Your task to perform on an android device: Add logitech g502 to the cart on amazon Image 0: 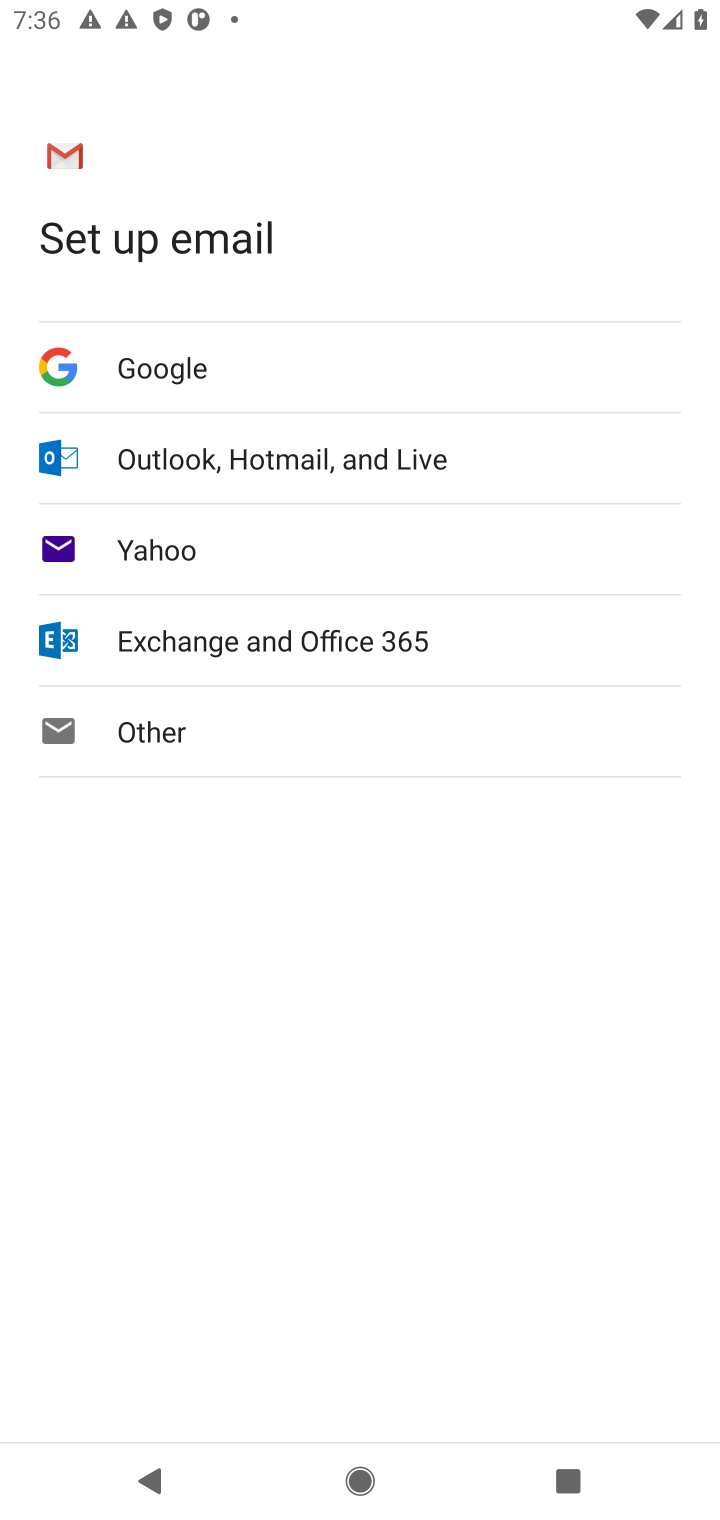
Step 0: press home button
Your task to perform on an android device: Add logitech g502 to the cart on amazon Image 1: 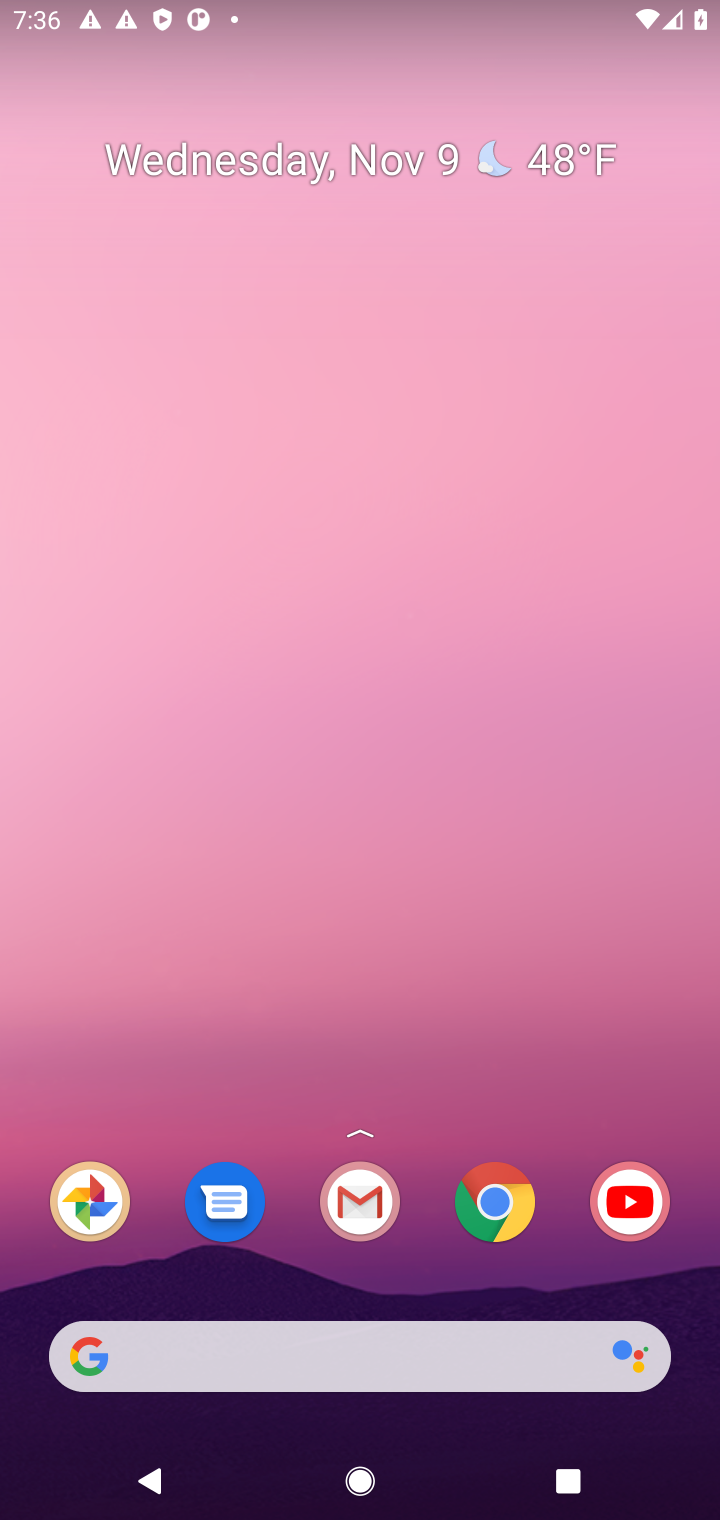
Step 1: click (491, 1190)
Your task to perform on an android device: Add logitech g502 to the cart on amazon Image 2: 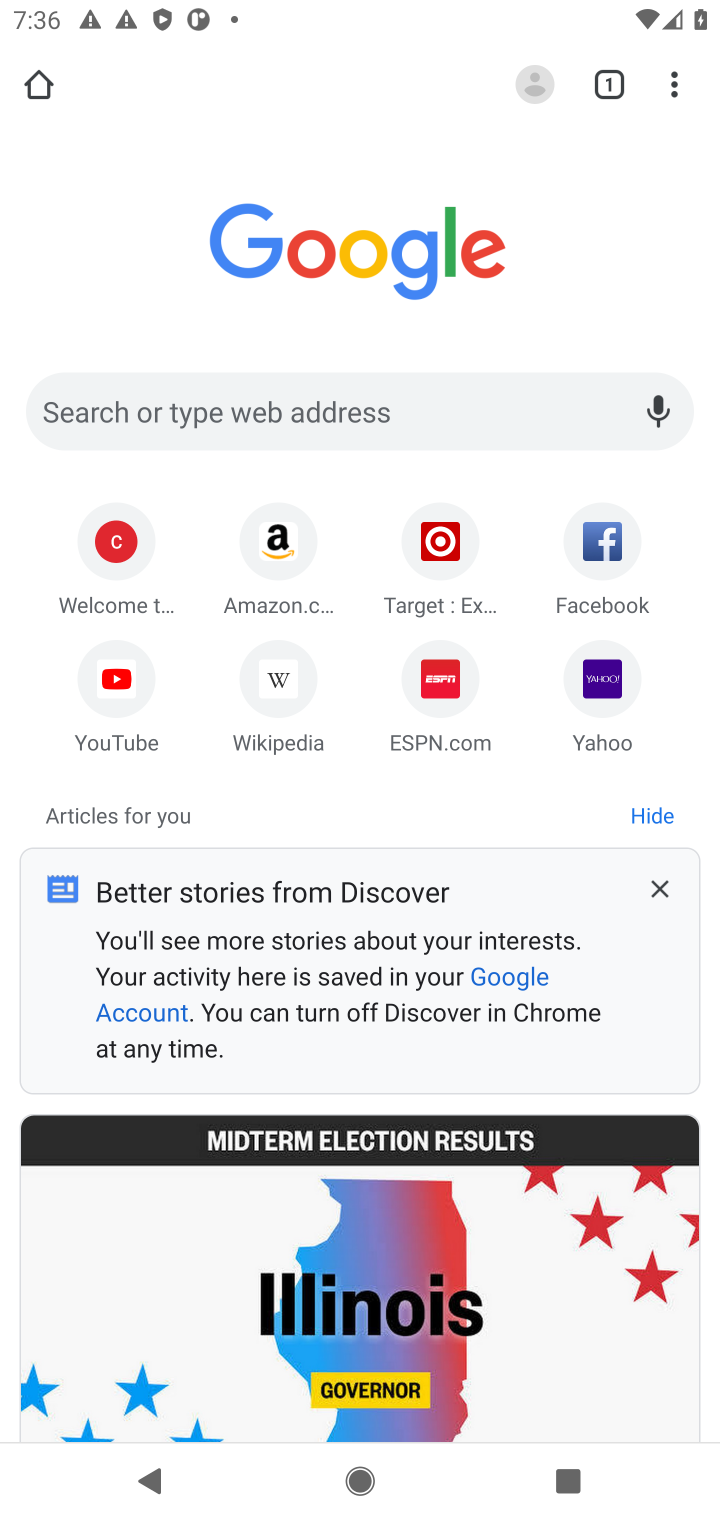
Step 2: click (248, 418)
Your task to perform on an android device: Add logitech g502 to the cart on amazon Image 3: 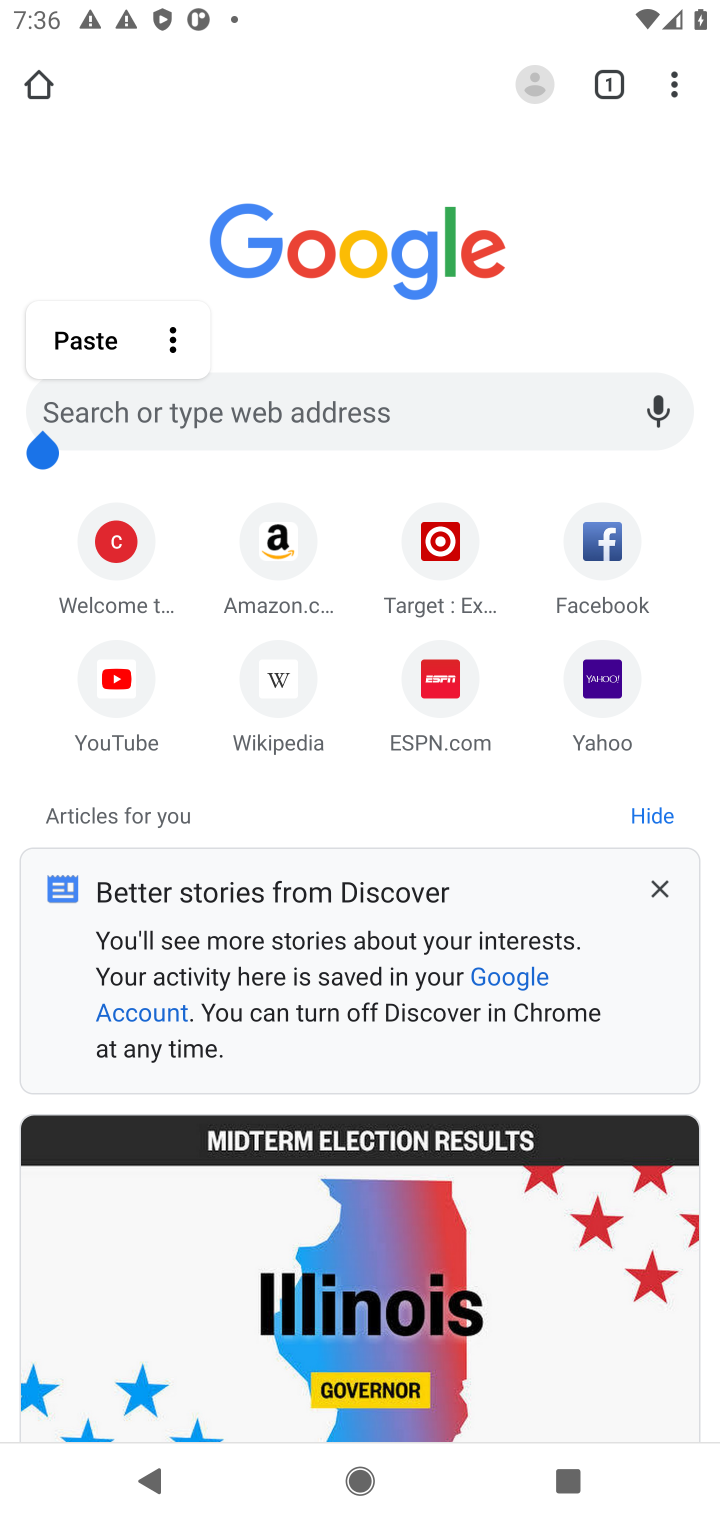
Step 3: click (213, 412)
Your task to perform on an android device: Add logitech g502 to the cart on amazon Image 4: 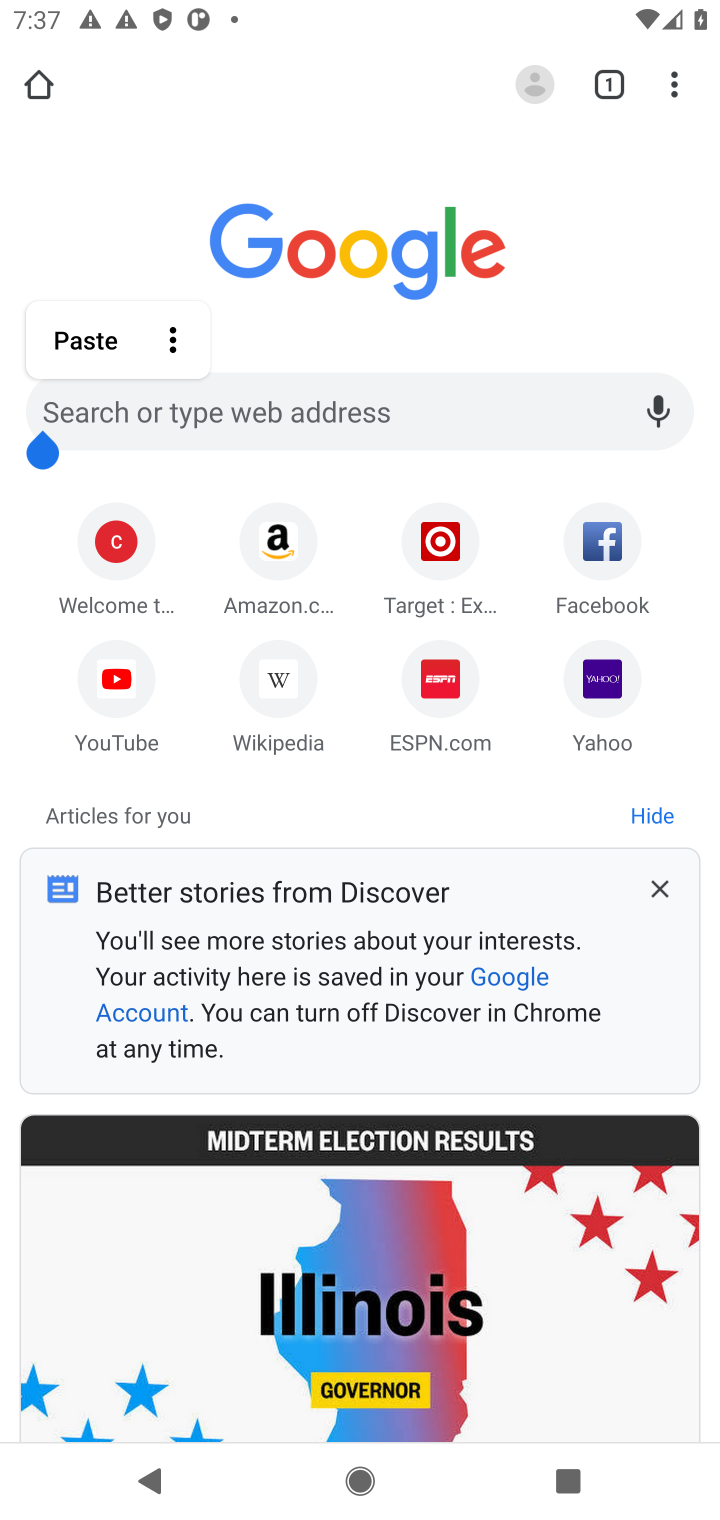
Step 4: click (178, 405)
Your task to perform on an android device: Add logitech g502 to the cart on amazon Image 5: 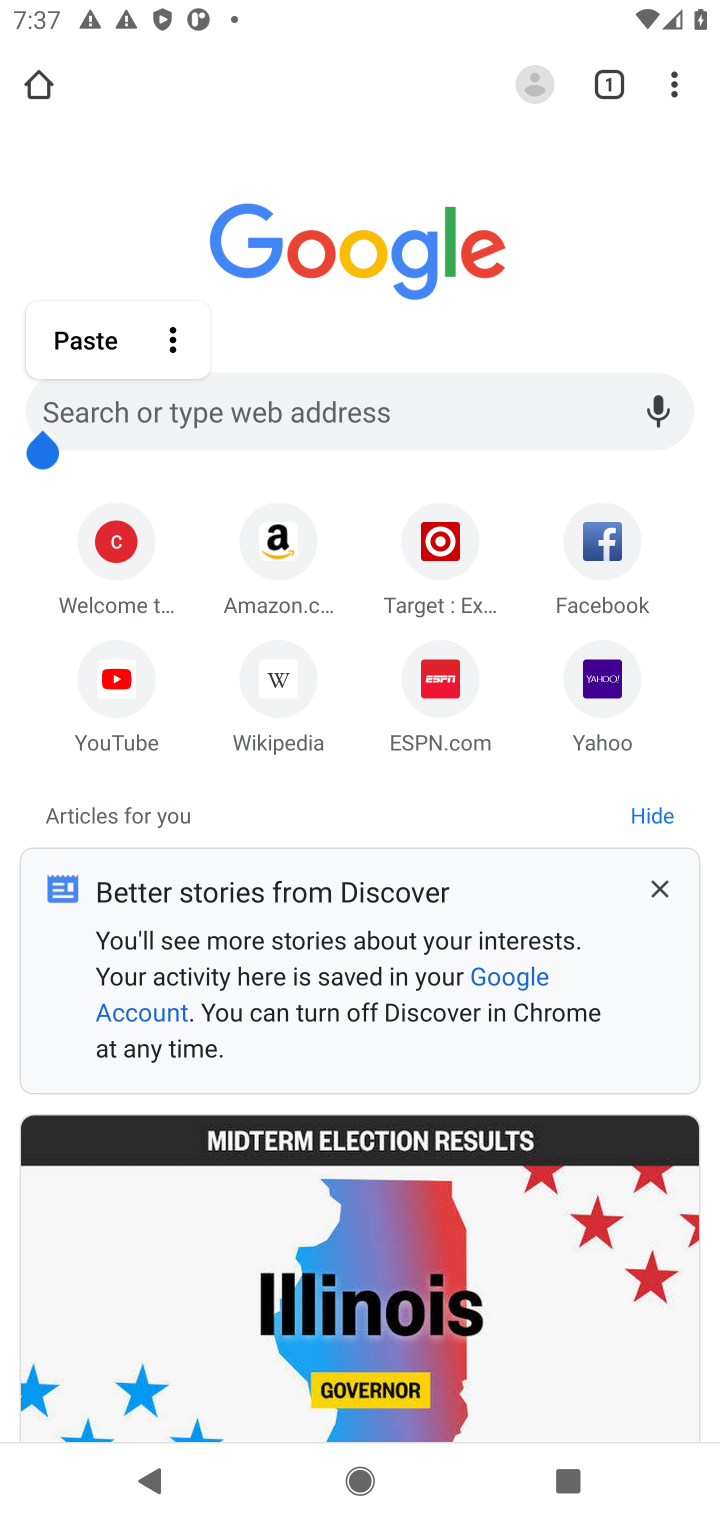
Step 5: click (321, 396)
Your task to perform on an android device: Add logitech g502 to the cart on amazon Image 6: 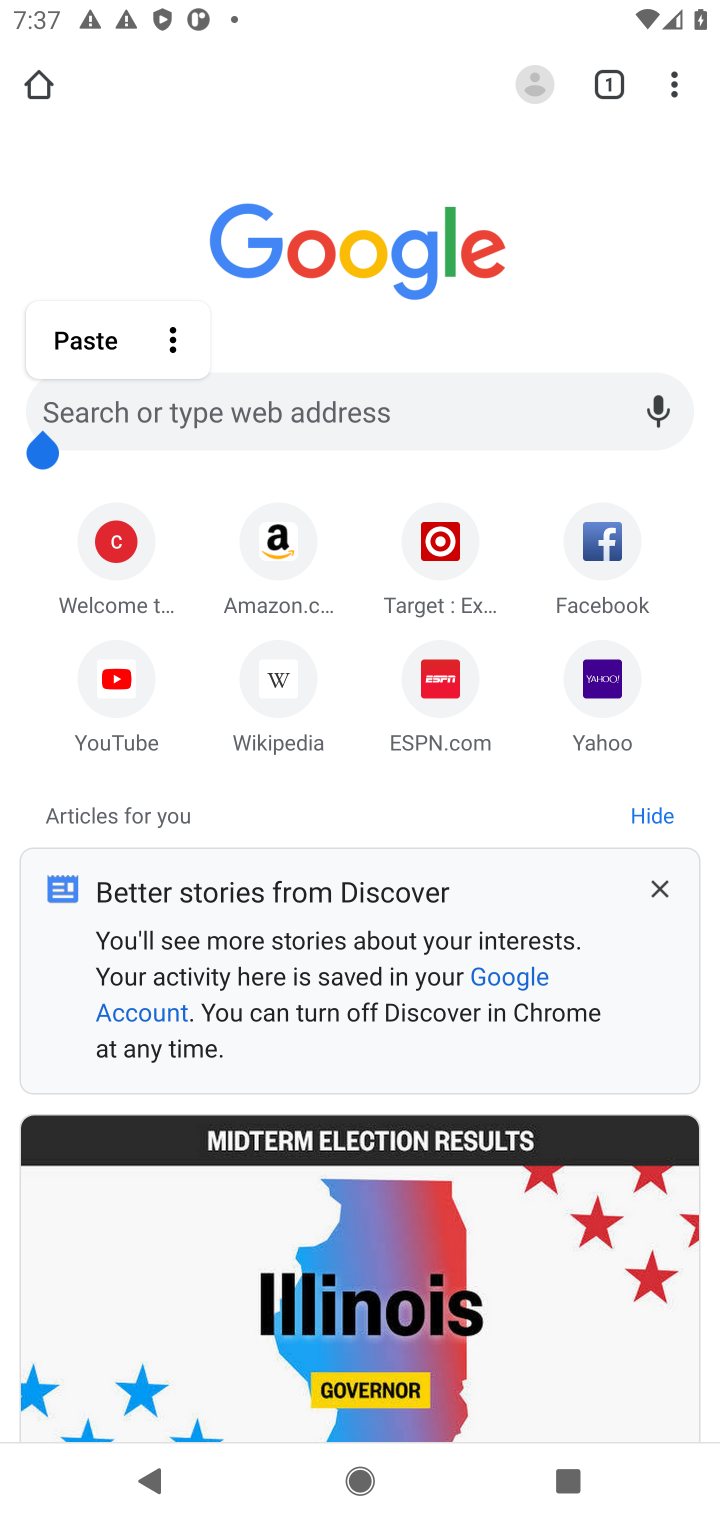
Step 6: click (487, 424)
Your task to perform on an android device: Add logitech g502 to the cart on amazon Image 7: 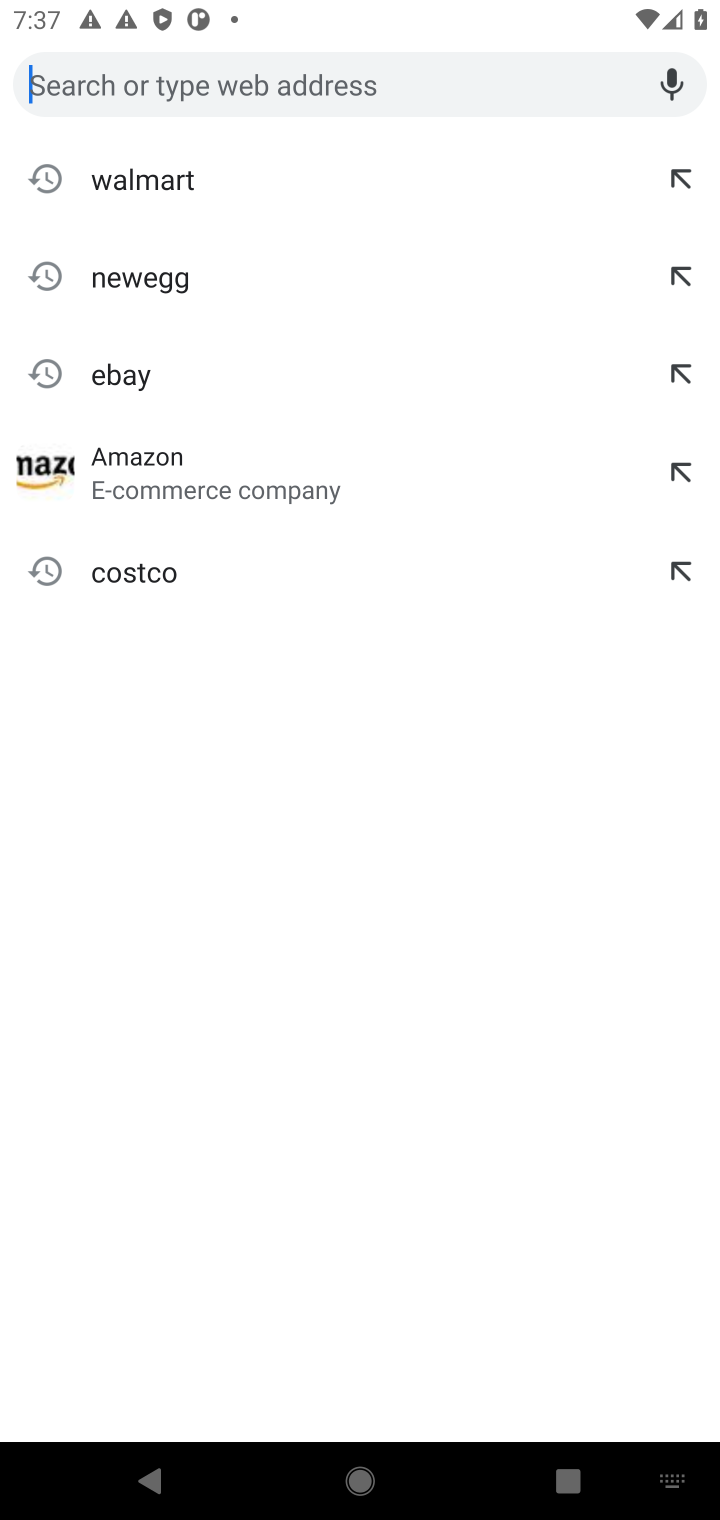
Step 7: click (114, 457)
Your task to perform on an android device: Add logitech g502 to the cart on amazon Image 8: 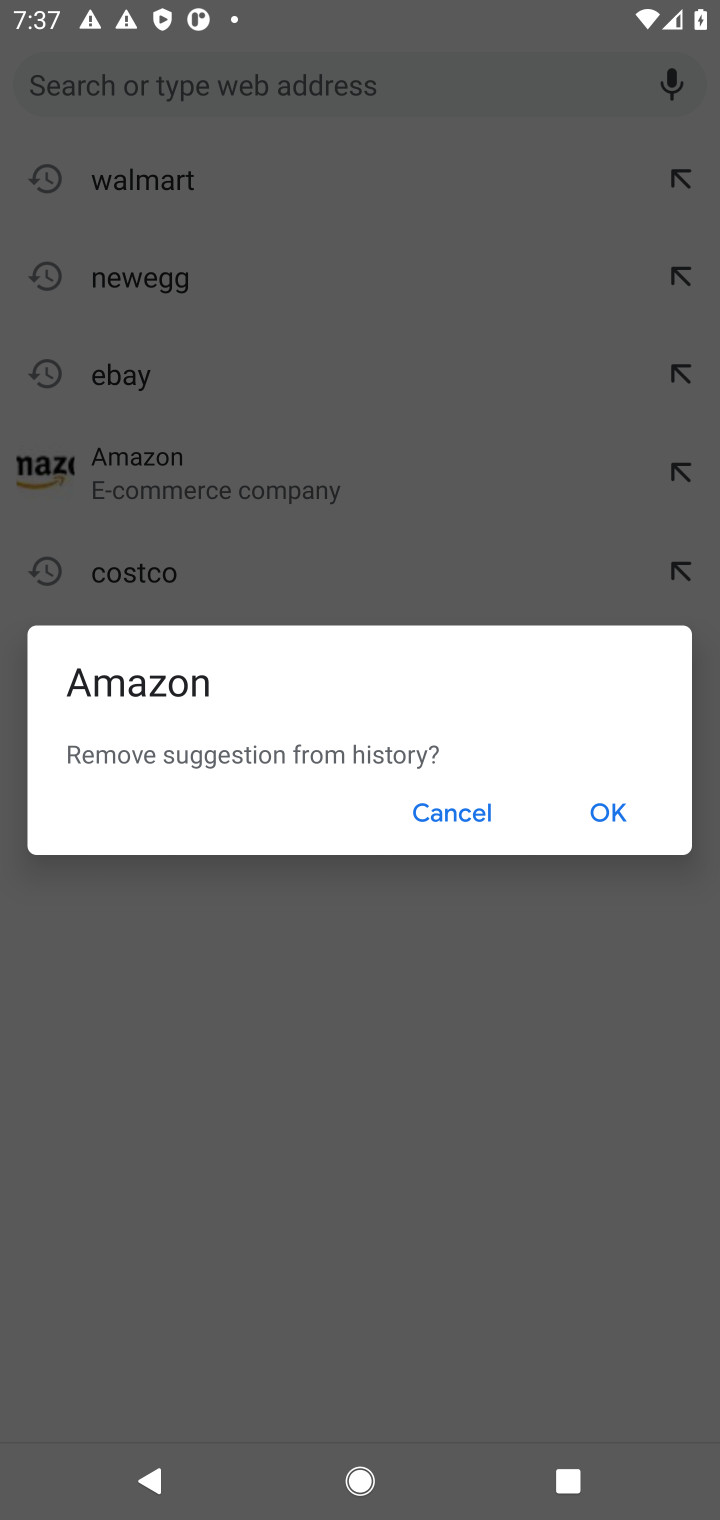
Step 8: click (440, 805)
Your task to perform on an android device: Add logitech g502 to the cart on amazon Image 9: 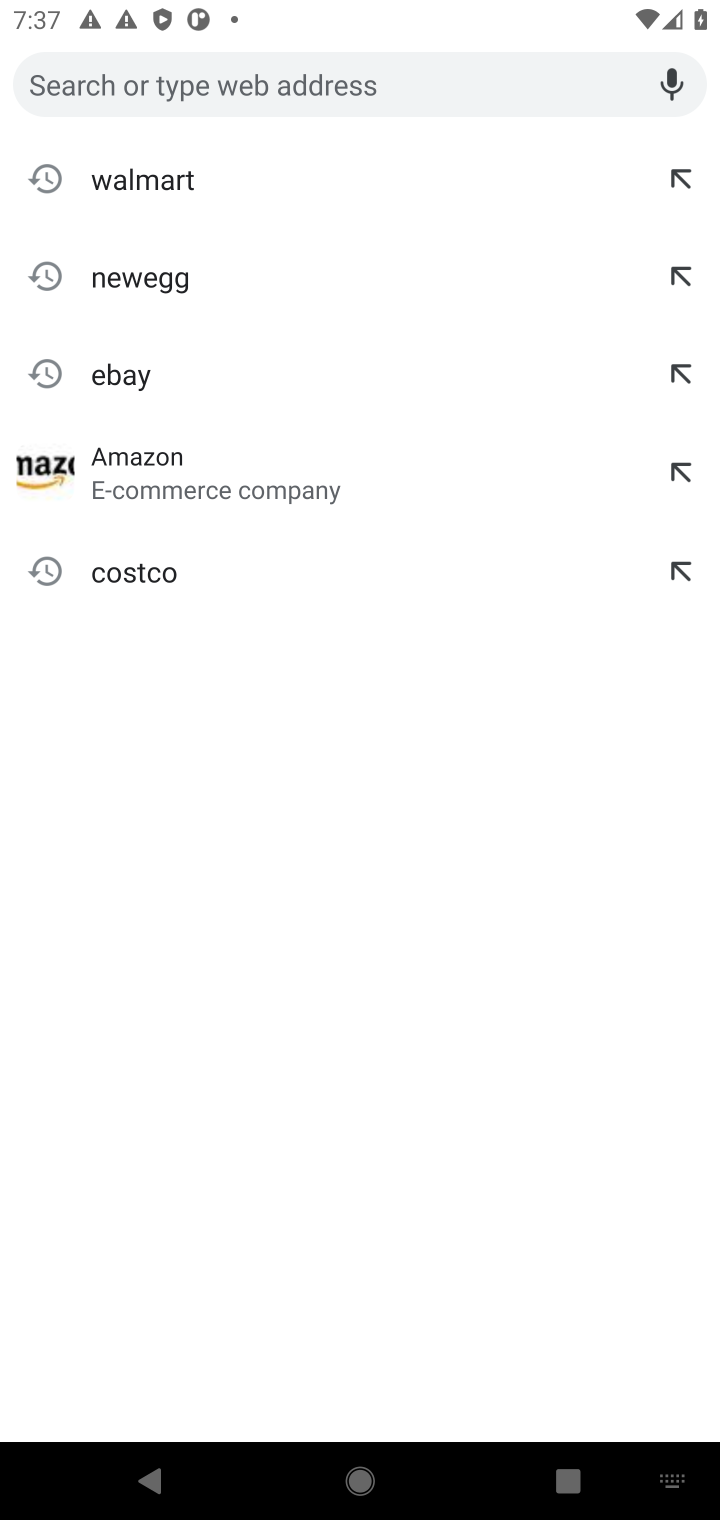
Step 9: click (127, 495)
Your task to perform on an android device: Add logitech g502 to the cart on amazon Image 10: 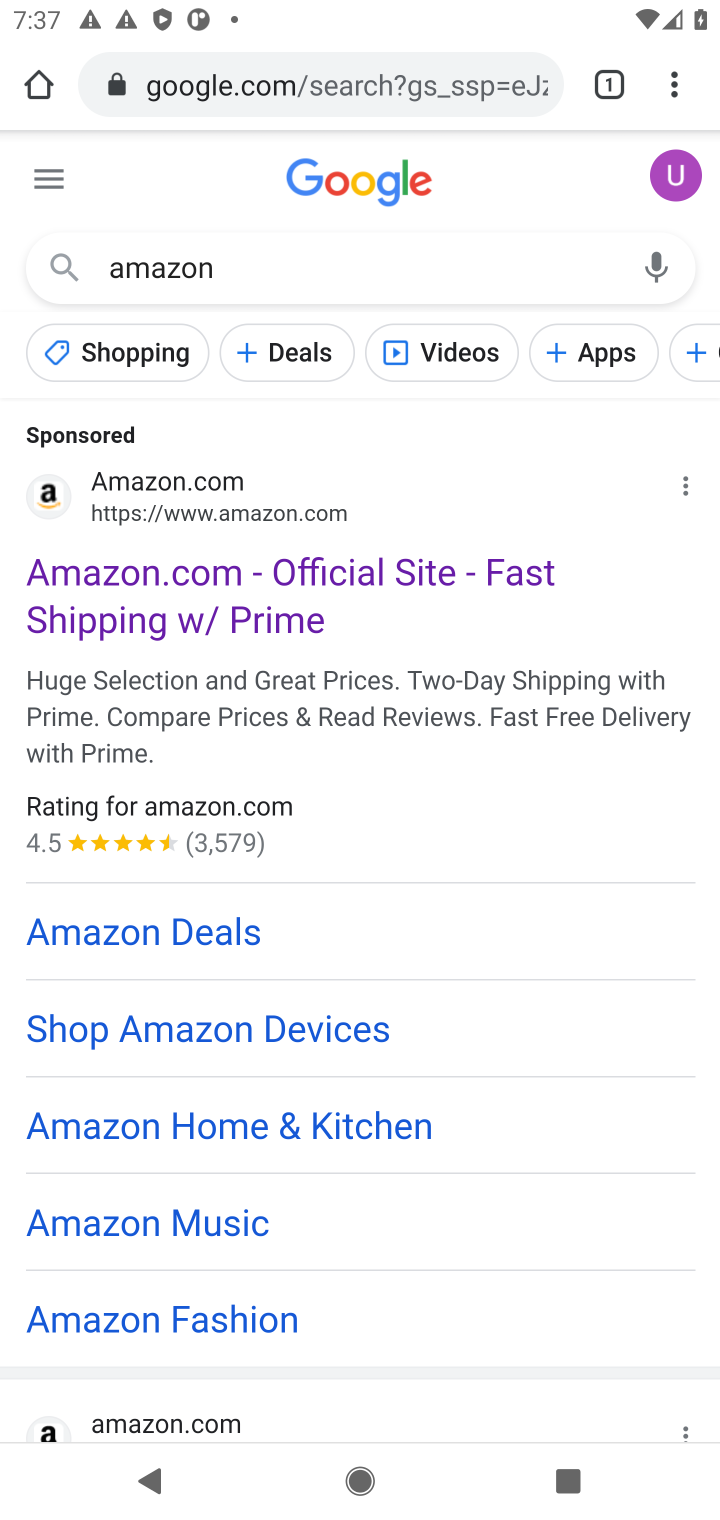
Step 10: click (169, 557)
Your task to perform on an android device: Add logitech g502 to the cart on amazon Image 11: 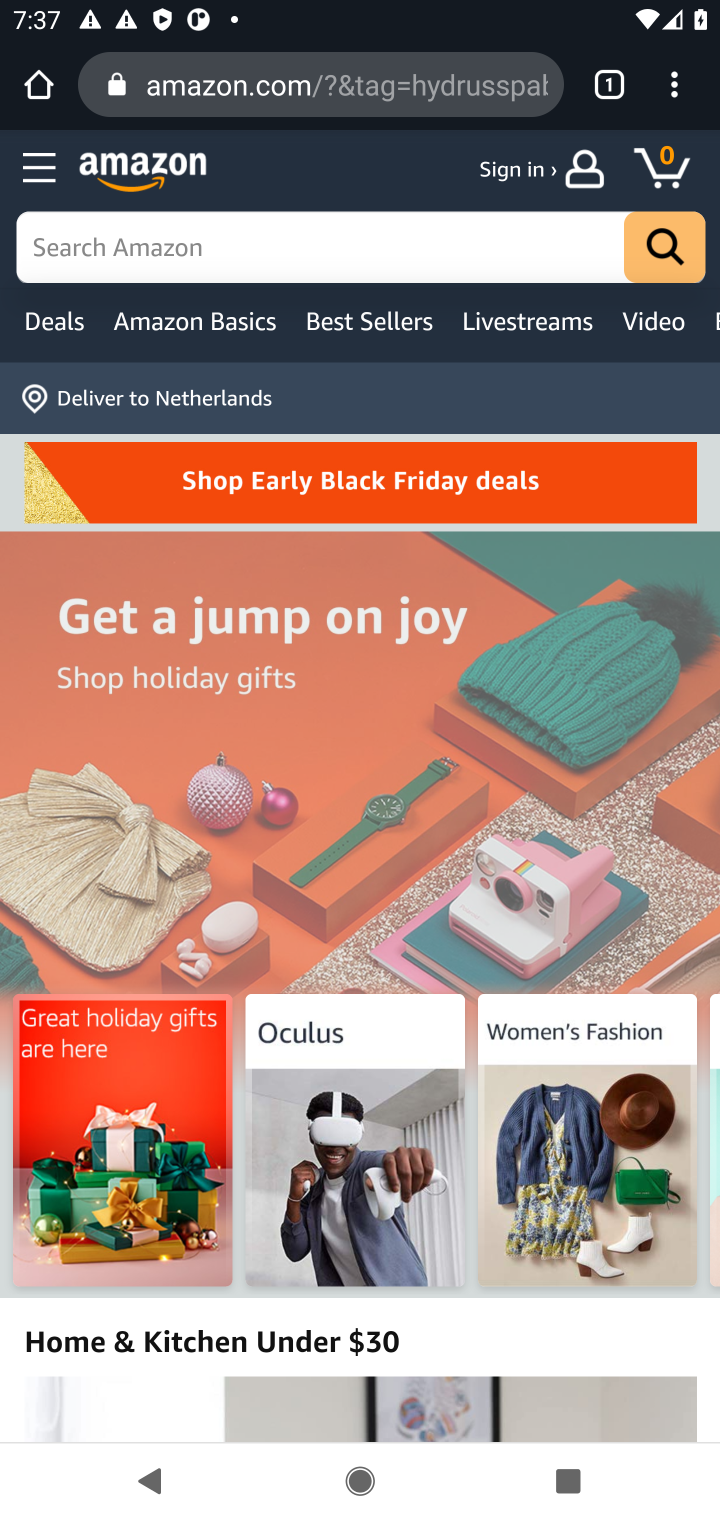
Step 11: click (134, 241)
Your task to perform on an android device: Add logitech g502 to the cart on amazon Image 12: 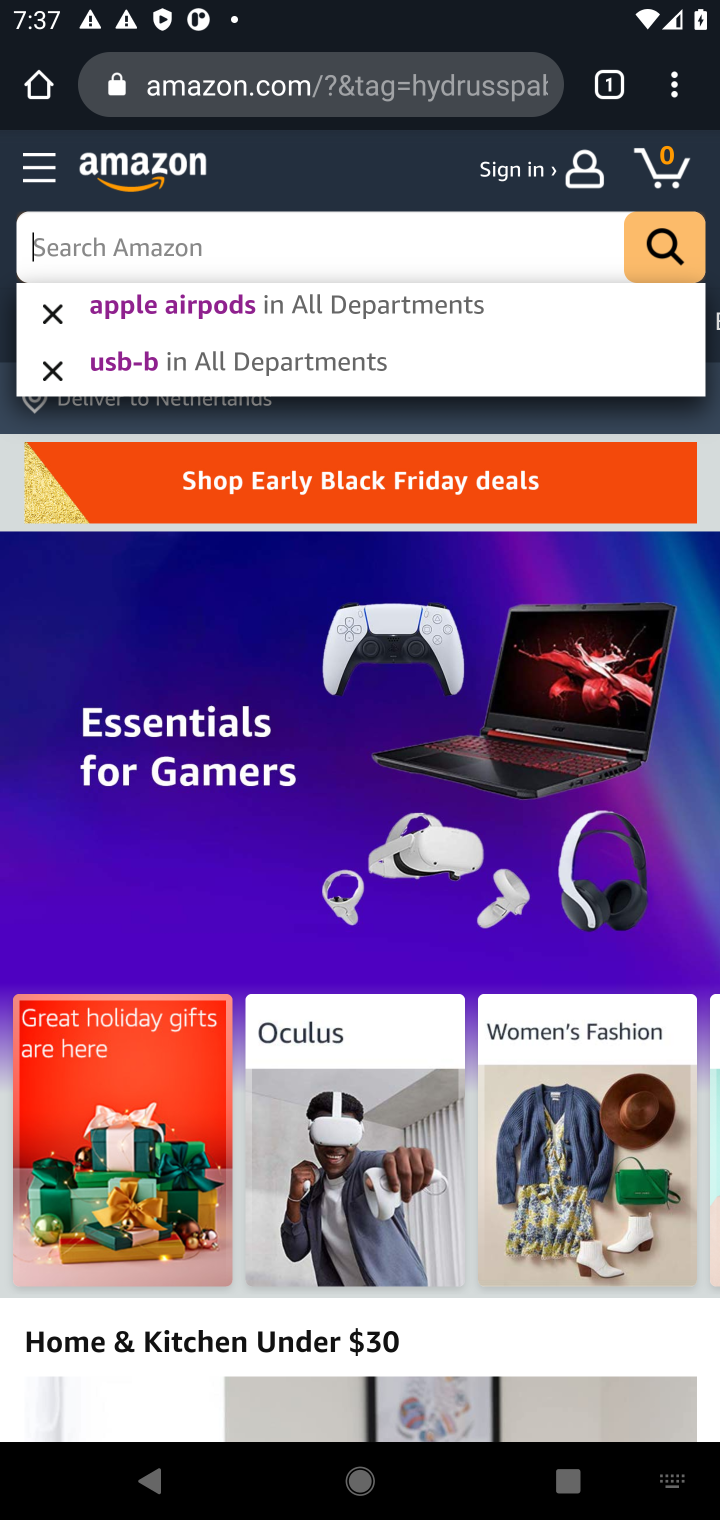
Step 12: type "logitech g502"
Your task to perform on an android device: Add logitech g502 to the cart on amazon Image 13: 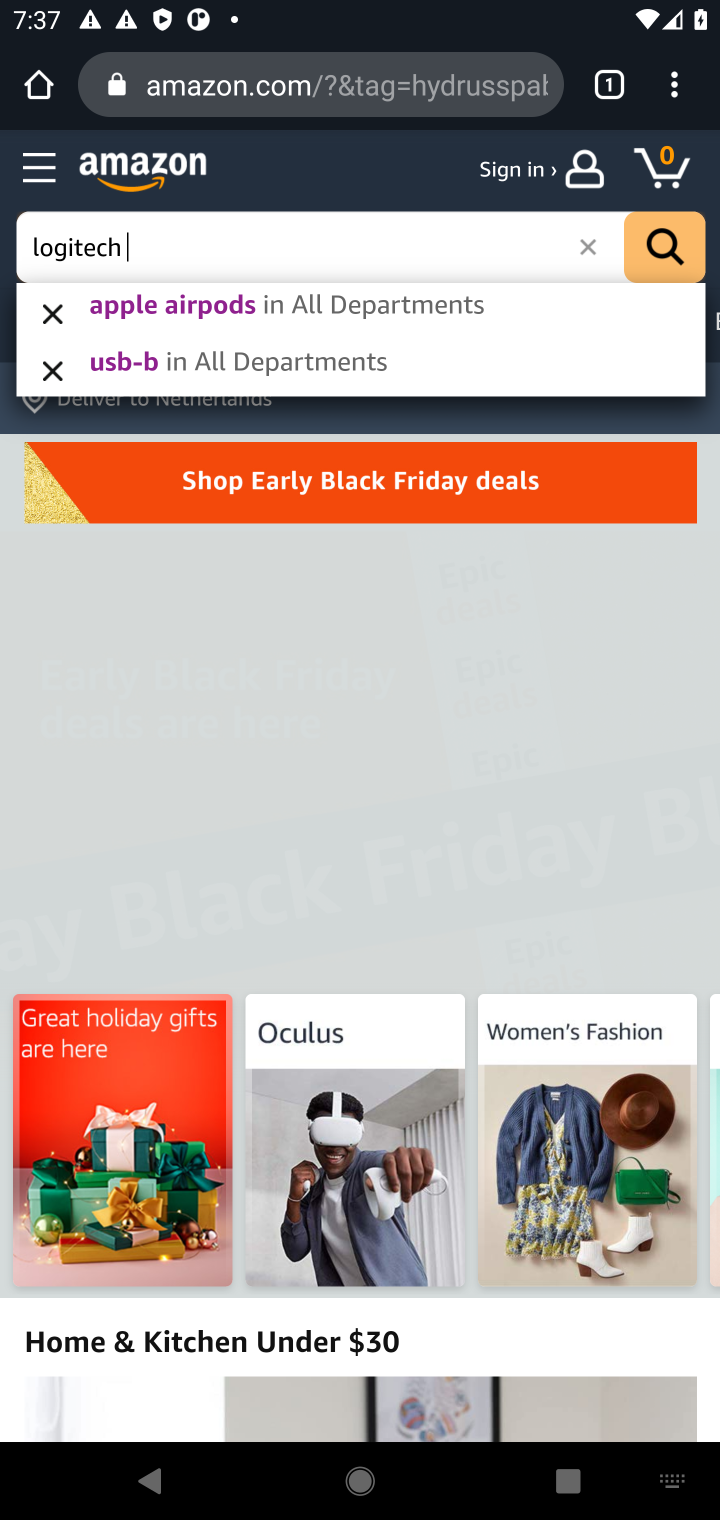
Step 13: press enter
Your task to perform on an android device: Add logitech g502 to the cart on amazon Image 14: 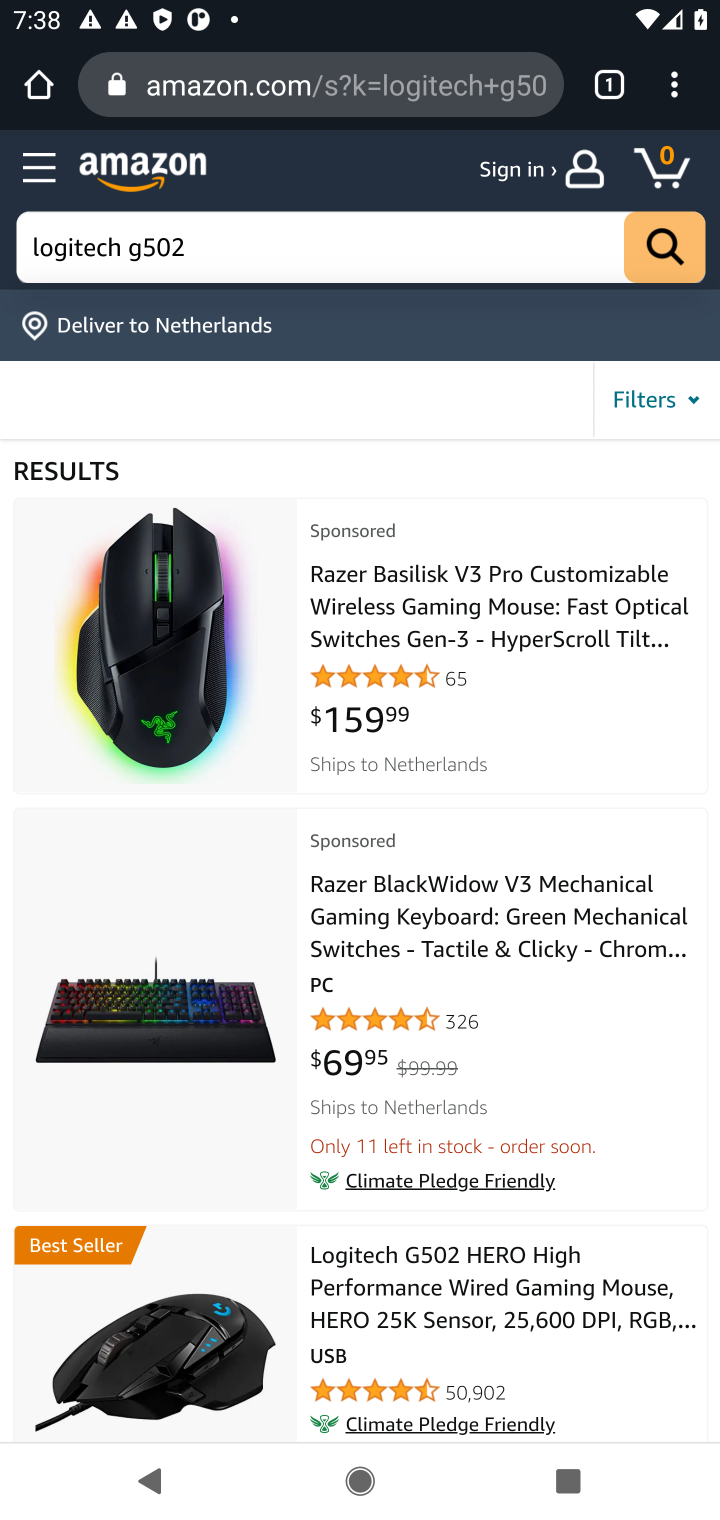
Step 14: drag from (360, 1096) to (461, 617)
Your task to perform on an android device: Add logitech g502 to the cart on amazon Image 15: 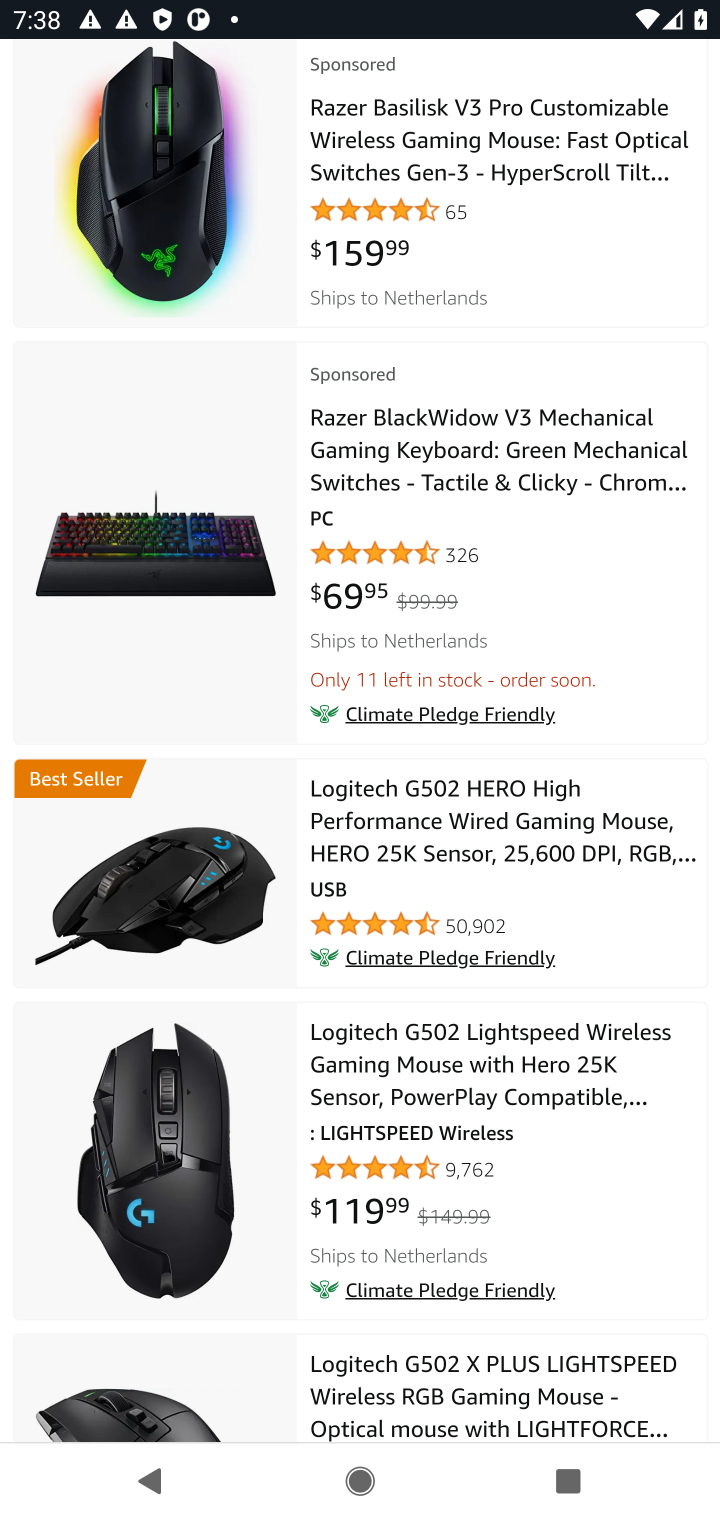
Step 15: click (436, 846)
Your task to perform on an android device: Add logitech g502 to the cart on amazon Image 16: 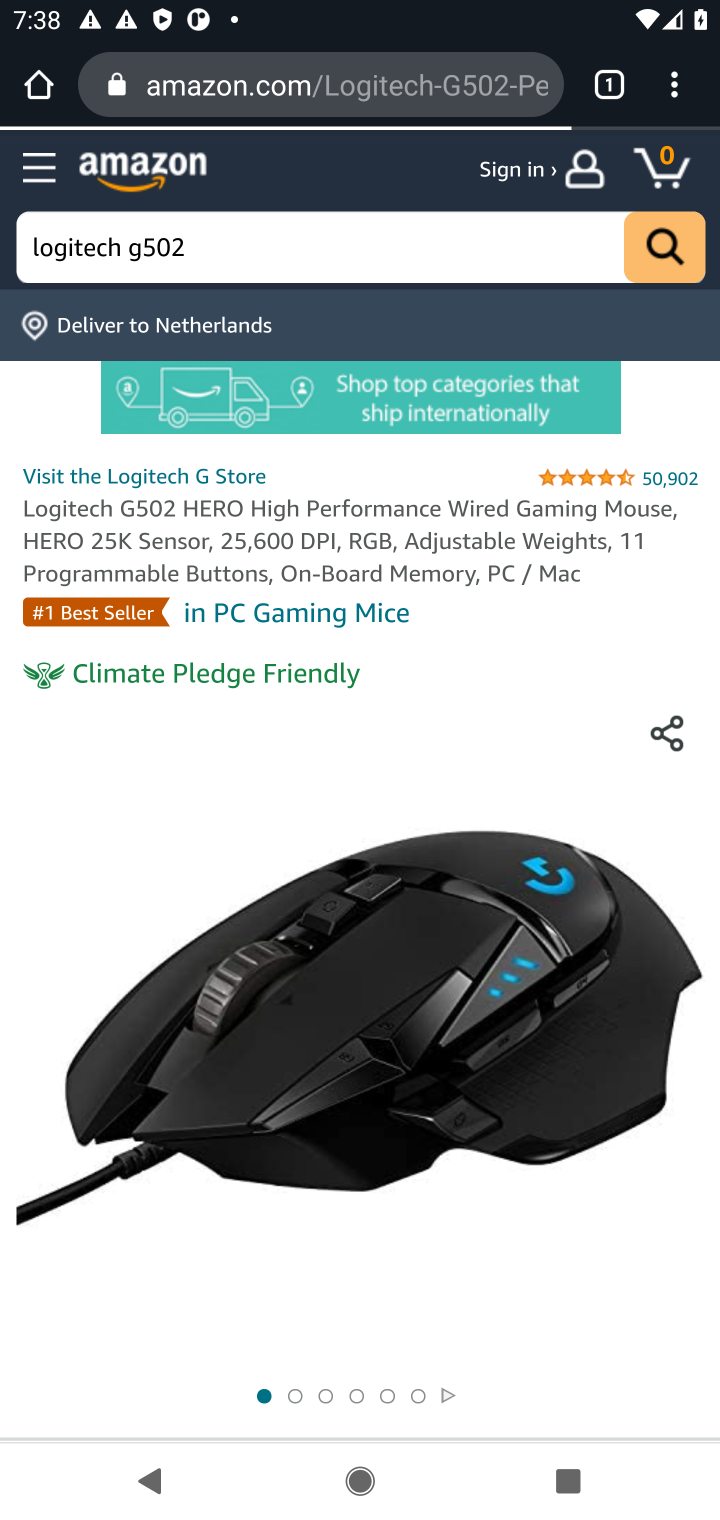
Step 16: task complete